Your task to perform on an android device: check android version Image 0: 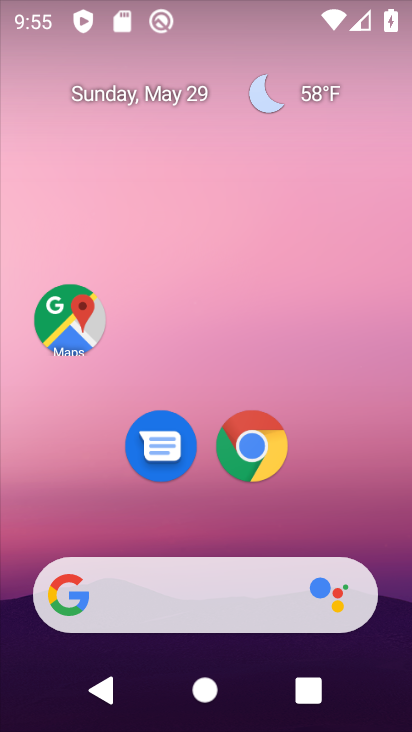
Step 0: drag from (179, 517) to (192, 119)
Your task to perform on an android device: check android version Image 1: 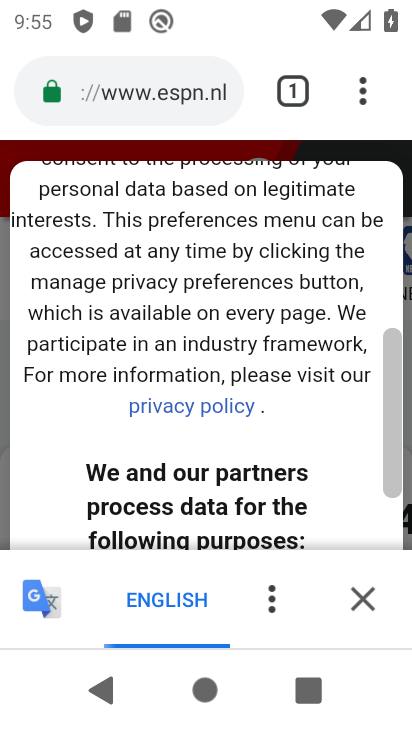
Step 1: press home button
Your task to perform on an android device: check android version Image 2: 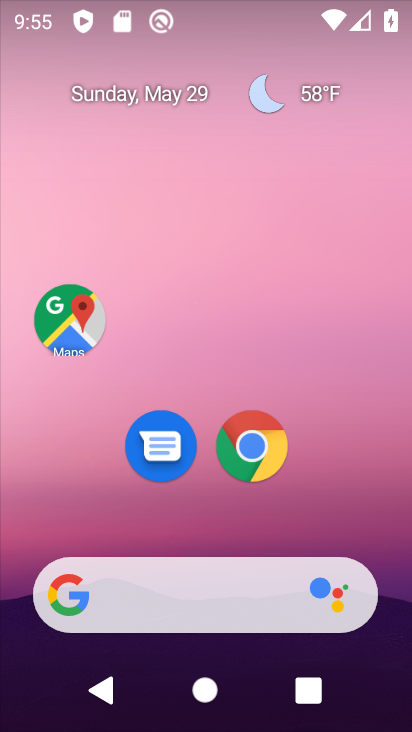
Step 2: drag from (171, 531) to (181, 211)
Your task to perform on an android device: check android version Image 3: 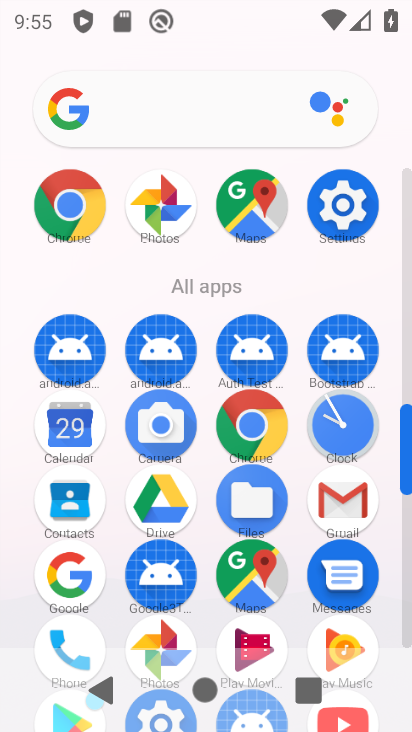
Step 3: click (333, 209)
Your task to perform on an android device: check android version Image 4: 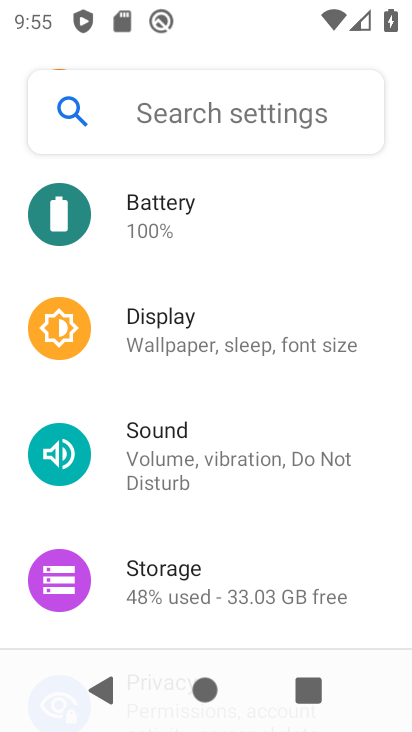
Step 4: drag from (213, 603) to (223, 209)
Your task to perform on an android device: check android version Image 5: 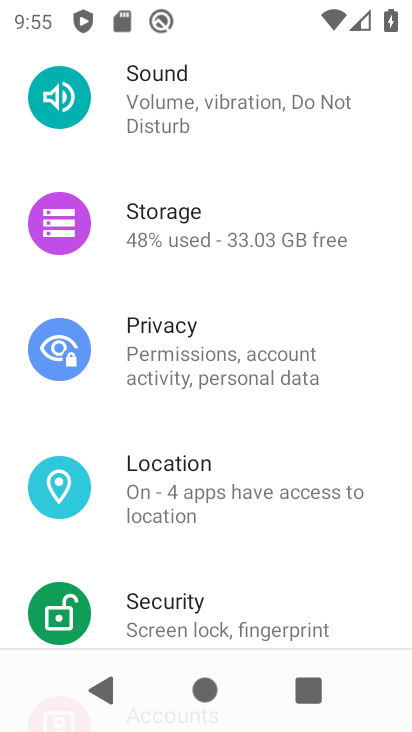
Step 5: drag from (214, 629) to (228, 311)
Your task to perform on an android device: check android version Image 6: 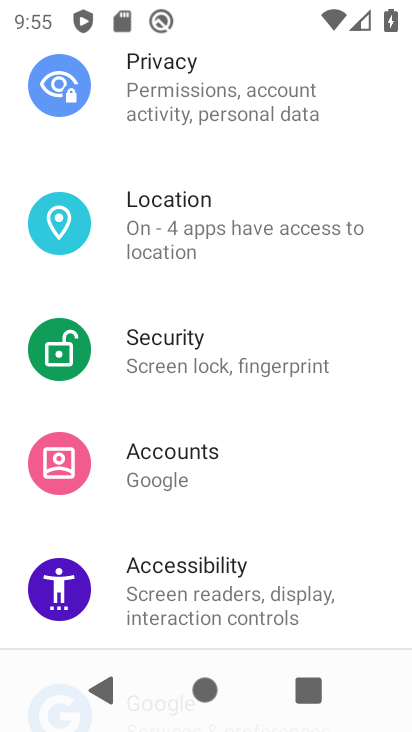
Step 6: drag from (197, 590) to (212, 190)
Your task to perform on an android device: check android version Image 7: 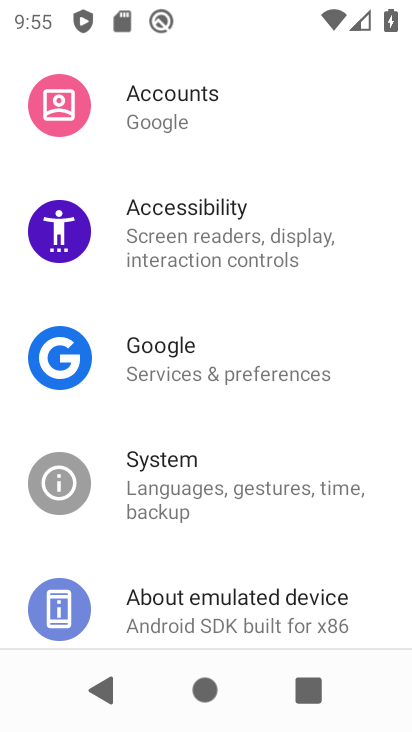
Step 7: click (256, 612)
Your task to perform on an android device: check android version Image 8: 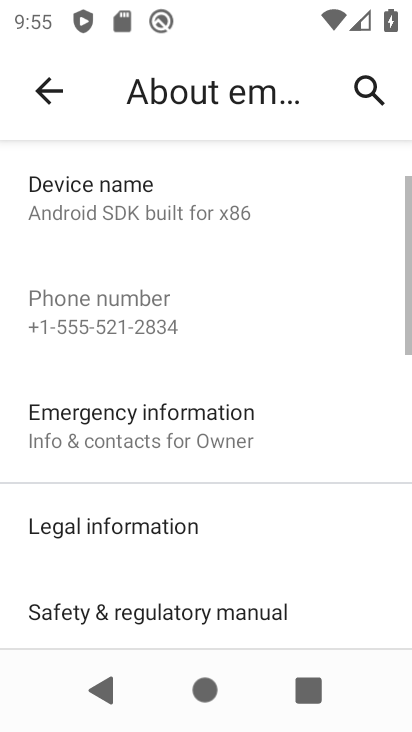
Step 8: task complete